Your task to perform on an android device: open the mobile data screen to see how much data has been used Image 0: 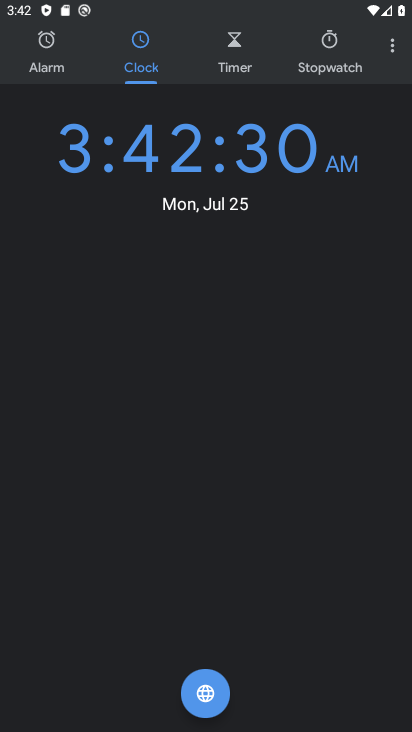
Step 0: press home button
Your task to perform on an android device: open the mobile data screen to see how much data has been used Image 1: 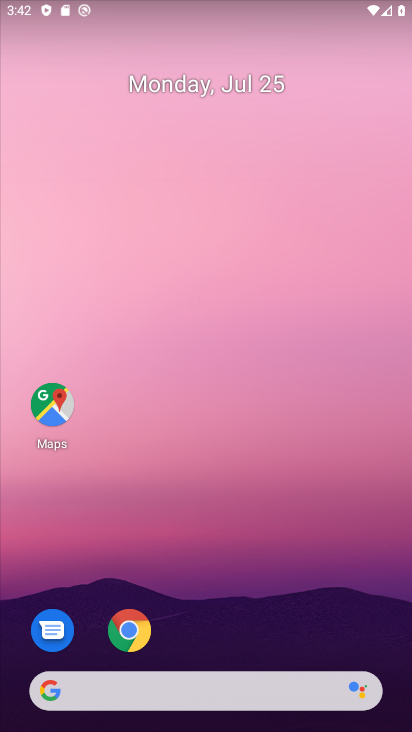
Step 1: drag from (224, 646) to (193, 179)
Your task to perform on an android device: open the mobile data screen to see how much data has been used Image 2: 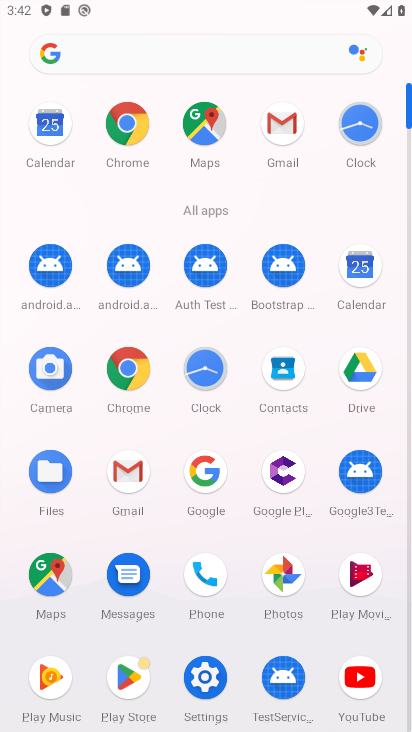
Step 2: click (204, 670)
Your task to perform on an android device: open the mobile data screen to see how much data has been used Image 3: 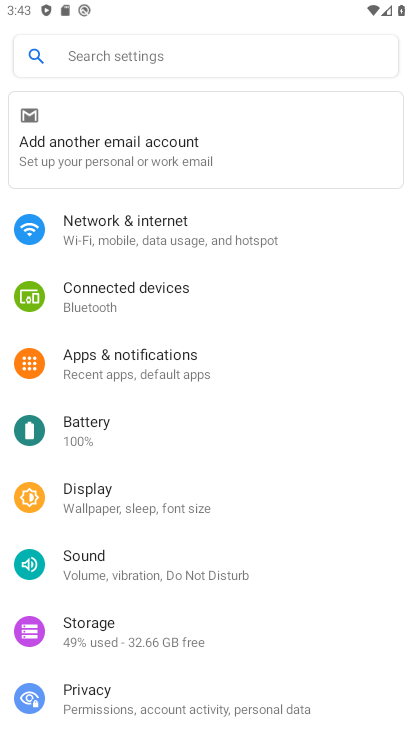
Step 3: click (170, 214)
Your task to perform on an android device: open the mobile data screen to see how much data has been used Image 4: 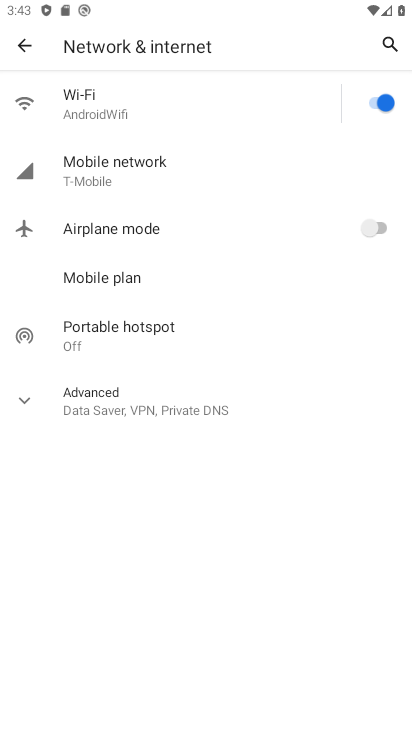
Step 4: click (177, 187)
Your task to perform on an android device: open the mobile data screen to see how much data has been used Image 5: 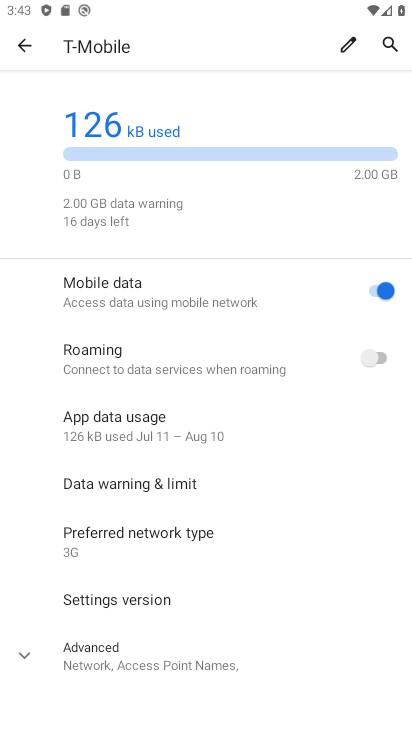
Step 5: task complete